Your task to perform on an android device: What's on my calendar today? Image 0: 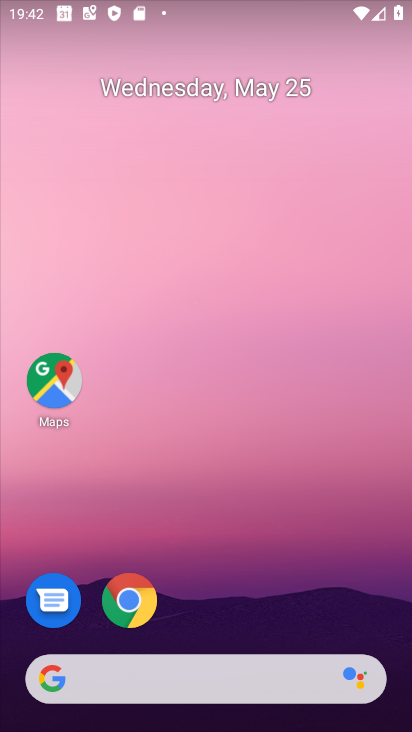
Step 0: drag from (280, 538) to (279, 218)
Your task to perform on an android device: What's on my calendar today? Image 1: 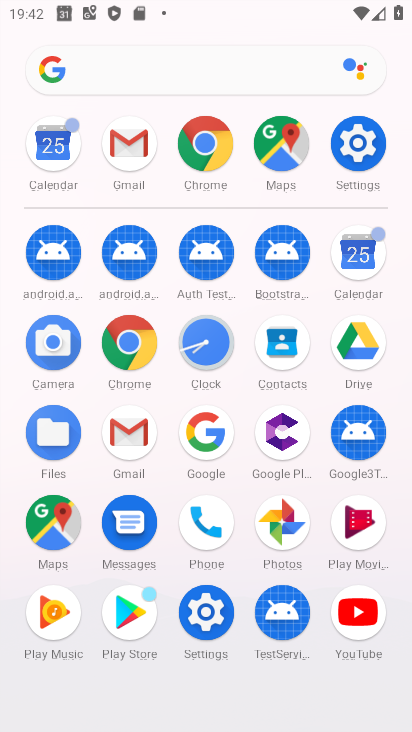
Step 1: click (368, 261)
Your task to perform on an android device: What's on my calendar today? Image 2: 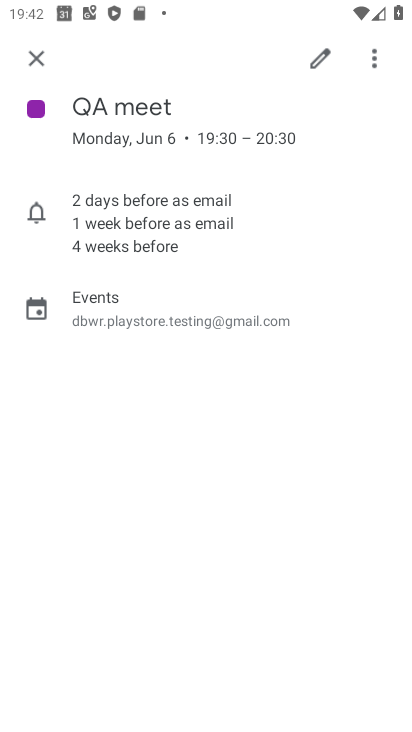
Step 2: click (31, 65)
Your task to perform on an android device: What's on my calendar today? Image 3: 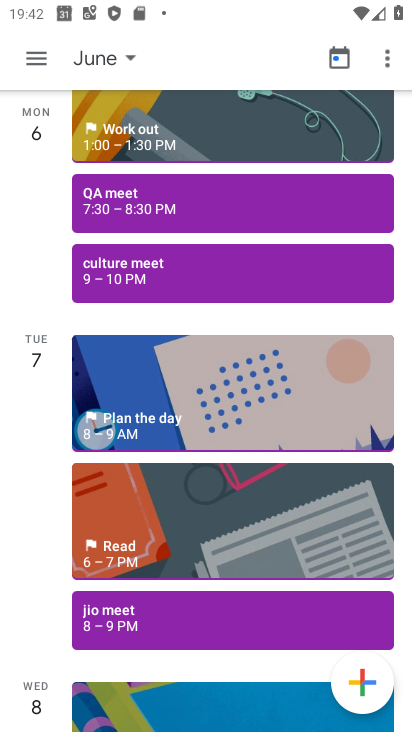
Step 3: click (107, 60)
Your task to perform on an android device: What's on my calendar today? Image 4: 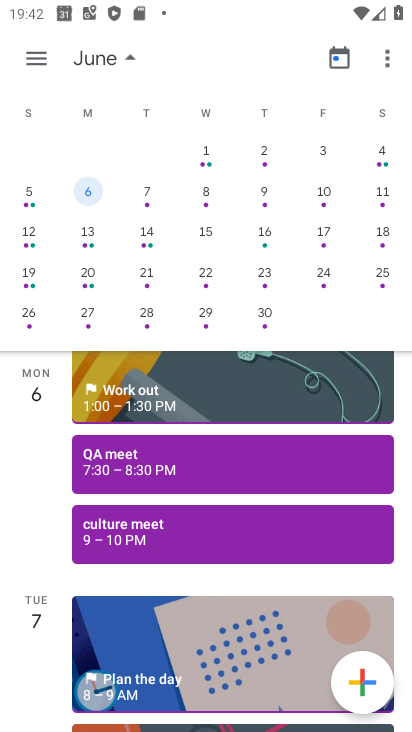
Step 4: drag from (107, 252) to (402, 227)
Your task to perform on an android device: What's on my calendar today? Image 5: 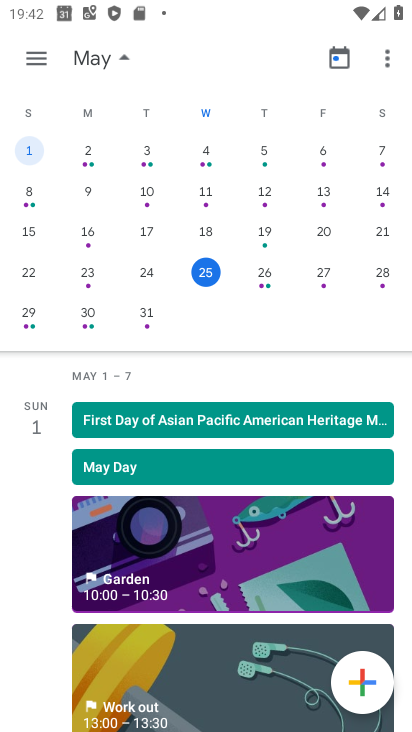
Step 5: click (208, 274)
Your task to perform on an android device: What's on my calendar today? Image 6: 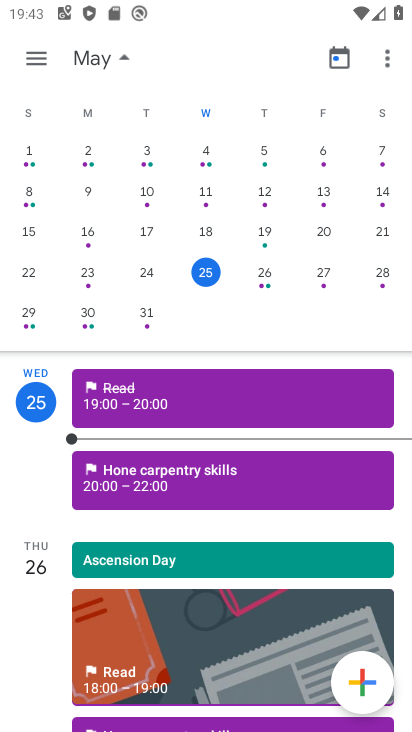
Step 6: task complete